Your task to perform on an android device: Show me productivity apps on the Play Store Image 0: 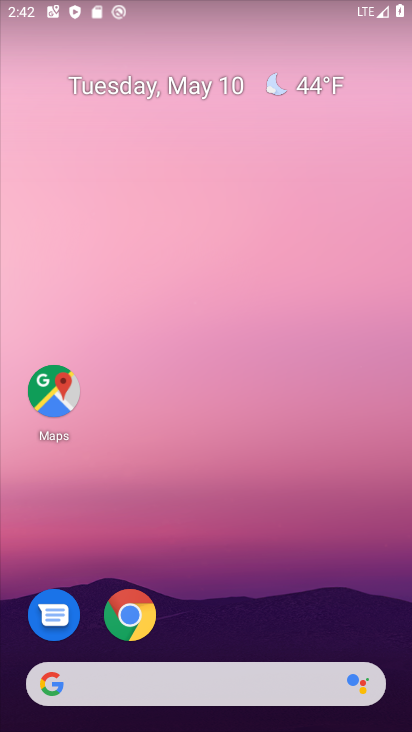
Step 0: drag from (302, 608) to (349, 7)
Your task to perform on an android device: Show me productivity apps on the Play Store Image 1: 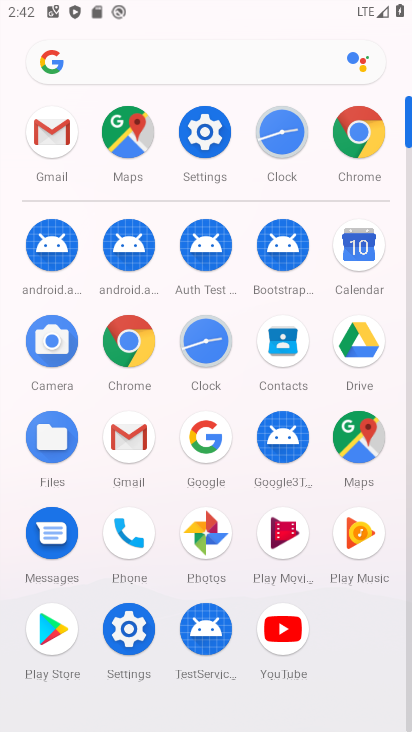
Step 1: click (65, 624)
Your task to perform on an android device: Show me productivity apps on the Play Store Image 2: 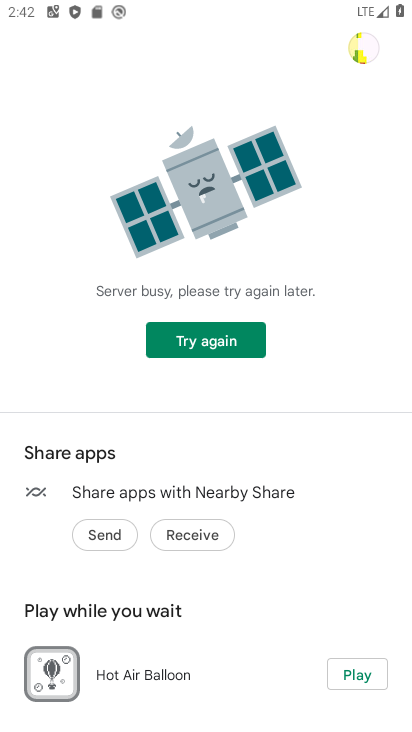
Step 2: task complete